Your task to perform on an android device: Go to display settings Image 0: 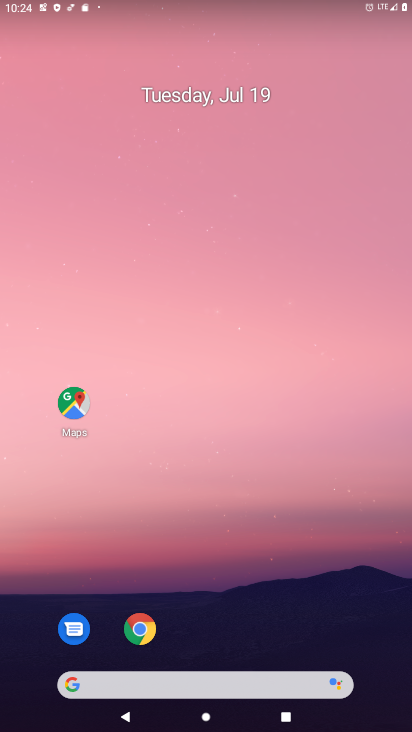
Step 0: drag from (220, 545) to (221, 85)
Your task to perform on an android device: Go to display settings Image 1: 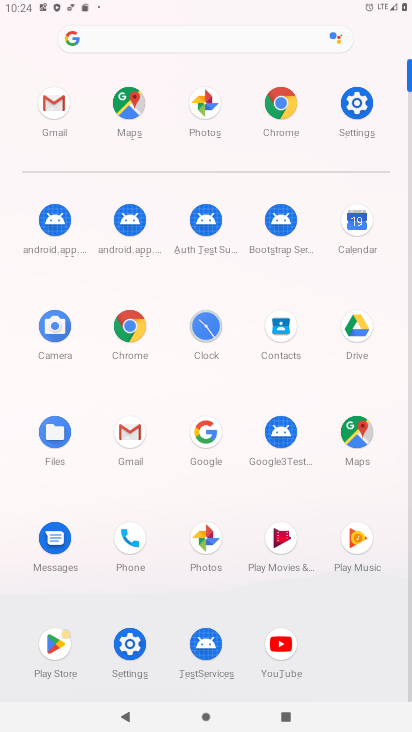
Step 1: click (133, 651)
Your task to perform on an android device: Go to display settings Image 2: 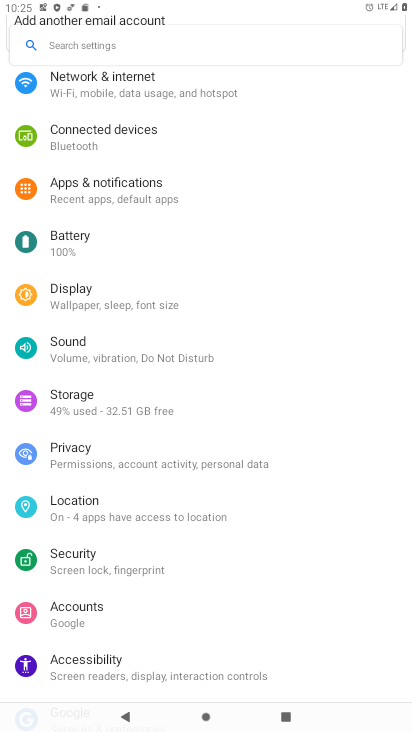
Step 2: click (75, 292)
Your task to perform on an android device: Go to display settings Image 3: 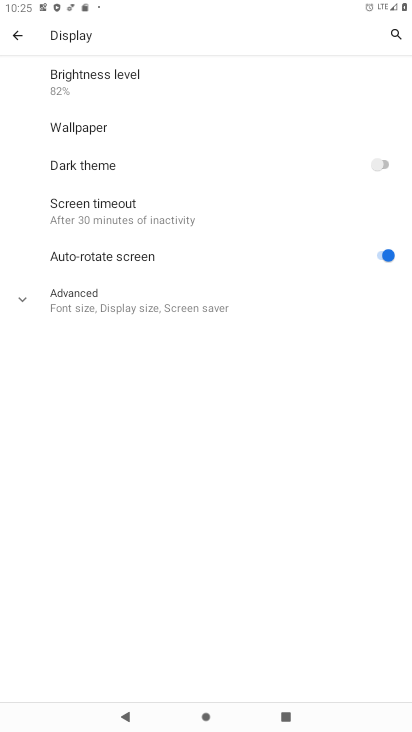
Step 3: task complete